Your task to perform on an android device: Open calendar and show me the third week of next month Image 0: 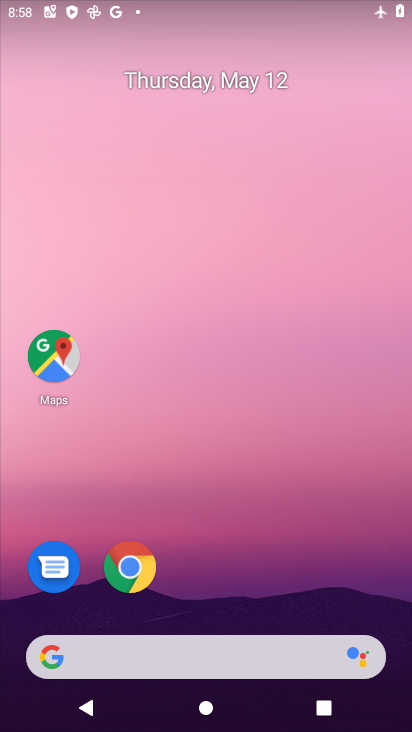
Step 0: drag from (245, 656) to (286, 138)
Your task to perform on an android device: Open calendar and show me the third week of next month Image 1: 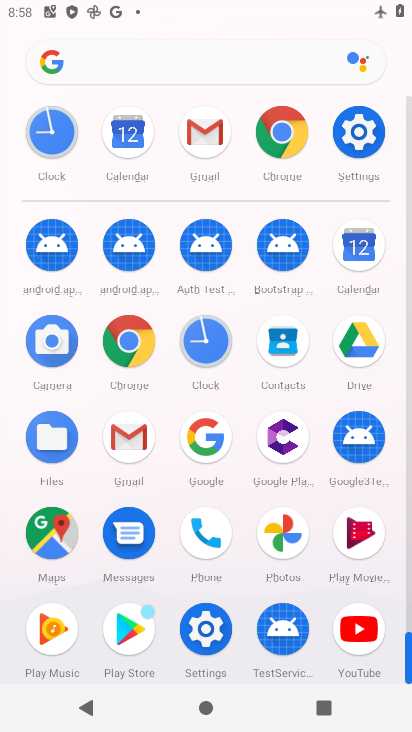
Step 1: click (360, 263)
Your task to perform on an android device: Open calendar and show me the third week of next month Image 2: 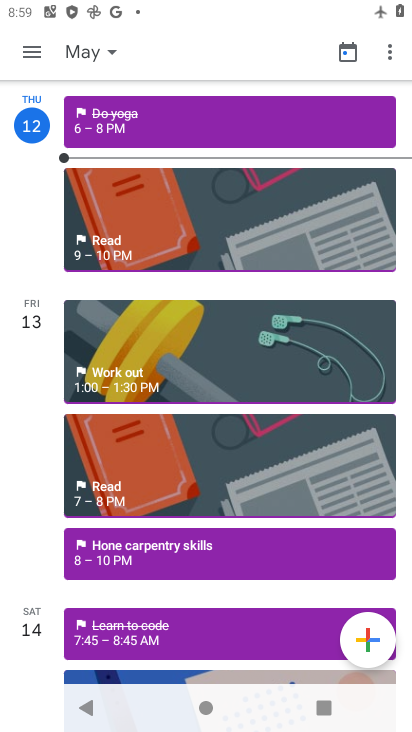
Step 2: click (98, 62)
Your task to perform on an android device: Open calendar and show me the third week of next month Image 3: 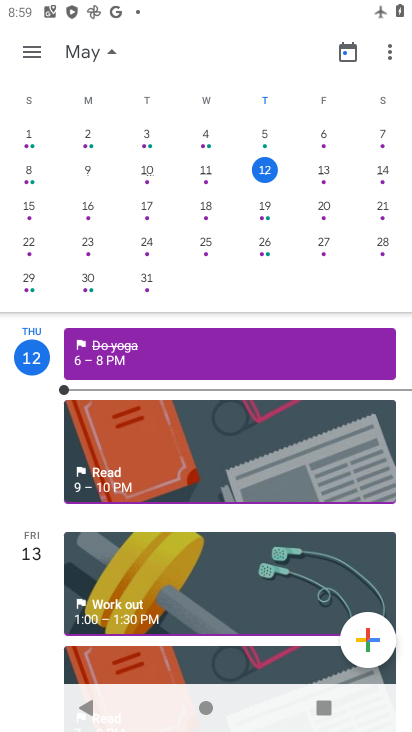
Step 3: drag from (331, 216) to (10, 214)
Your task to perform on an android device: Open calendar and show me the third week of next month Image 4: 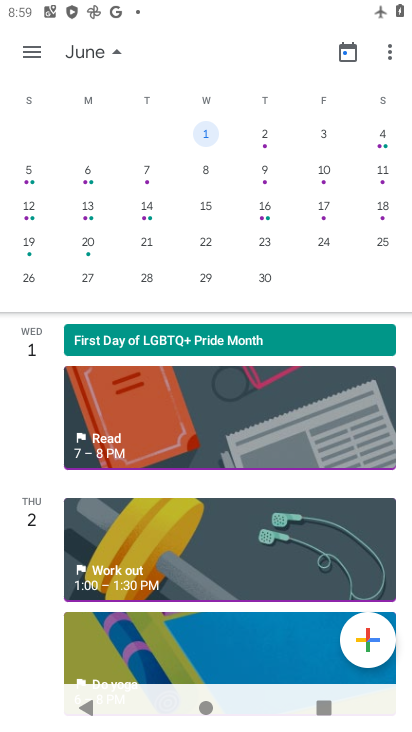
Step 4: click (38, 252)
Your task to perform on an android device: Open calendar and show me the third week of next month Image 5: 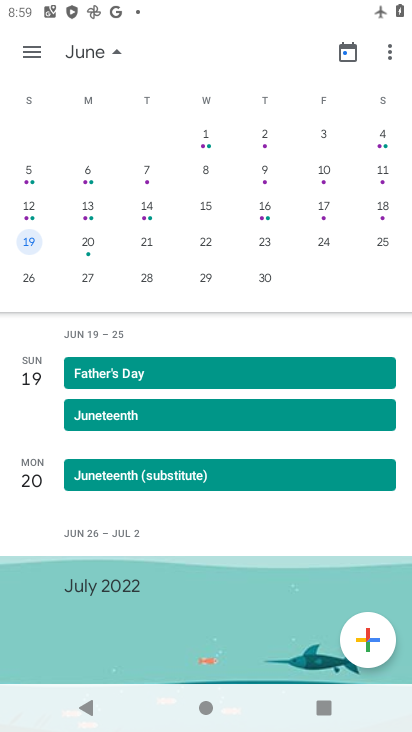
Step 5: task complete